Your task to perform on an android device: Open calendar and show me the third week of next month Image 0: 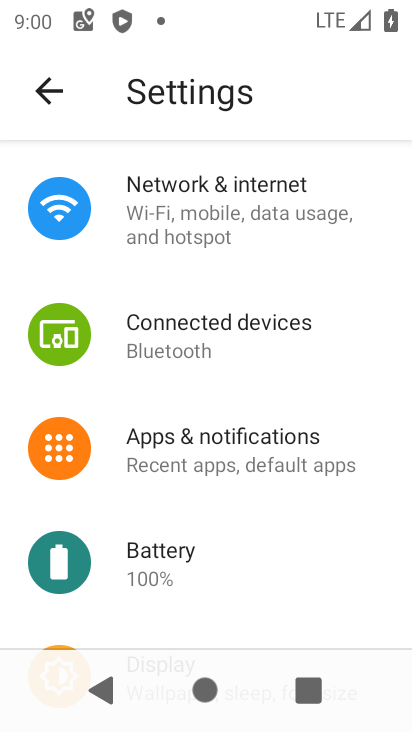
Step 0: press home button
Your task to perform on an android device: Open calendar and show me the third week of next month Image 1: 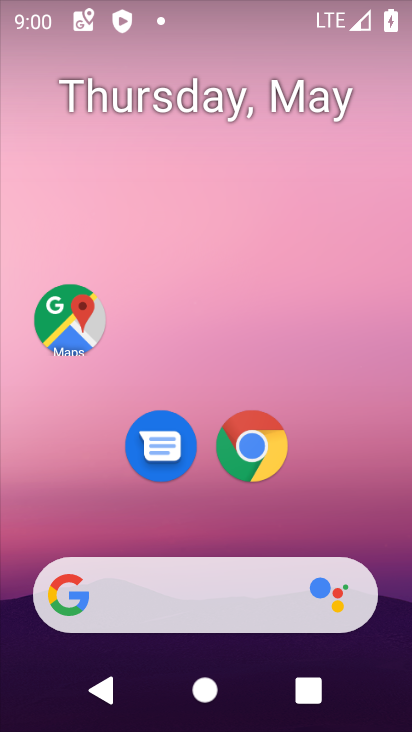
Step 1: drag from (395, 586) to (338, 58)
Your task to perform on an android device: Open calendar and show me the third week of next month Image 2: 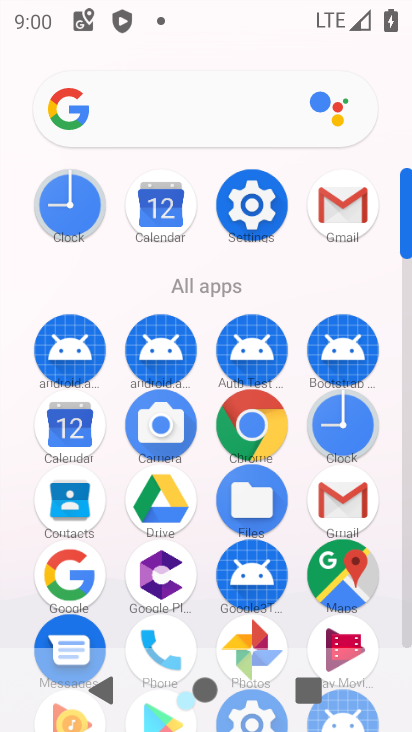
Step 2: click (407, 625)
Your task to perform on an android device: Open calendar and show me the third week of next month Image 3: 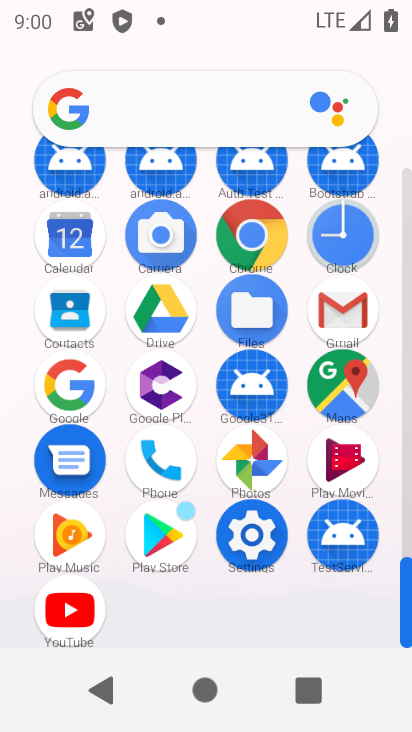
Step 3: click (64, 230)
Your task to perform on an android device: Open calendar and show me the third week of next month Image 4: 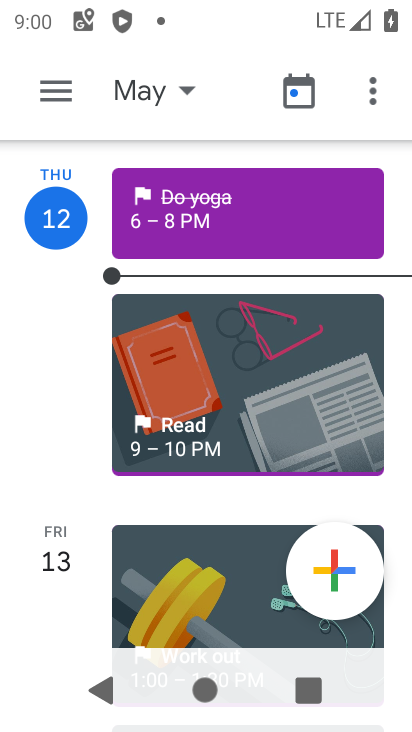
Step 4: drag from (157, 507) to (157, 451)
Your task to perform on an android device: Open calendar and show me the third week of next month Image 5: 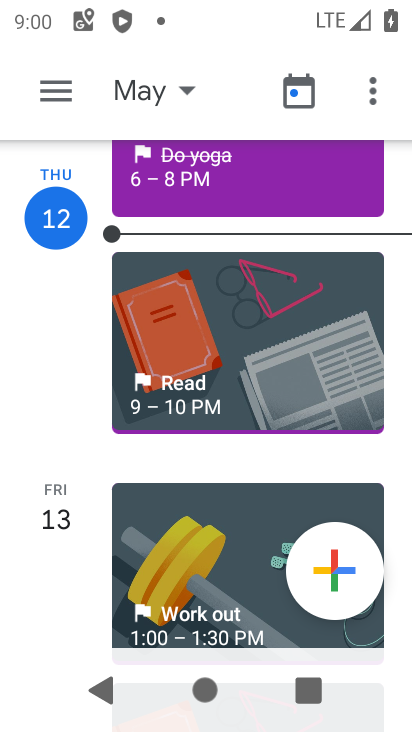
Step 5: click (181, 86)
Your task to perform on an android device: Open calendar and show me the third week of next month Image 6: 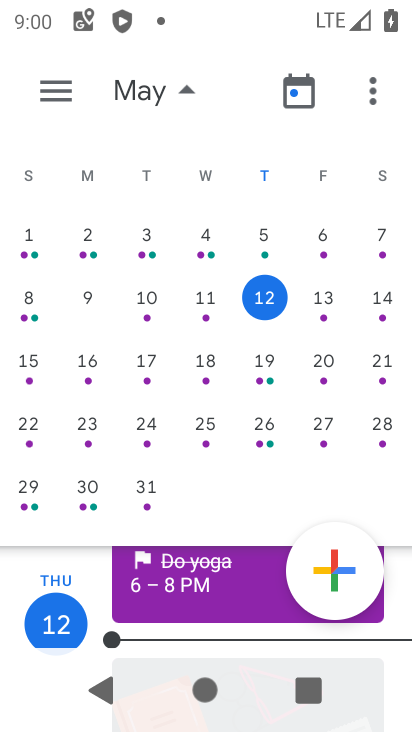
Step 6: click (64, 84)
Your task to perform on an android device: Open calendar and show me the third week of next month Image 7: 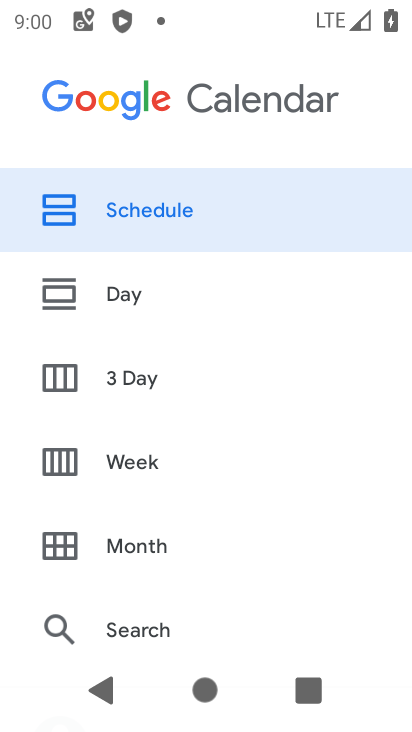
Step 7: click (139, 460)
Your task to perform on an android device: Open calendar and show me the third week of next month Image 8: 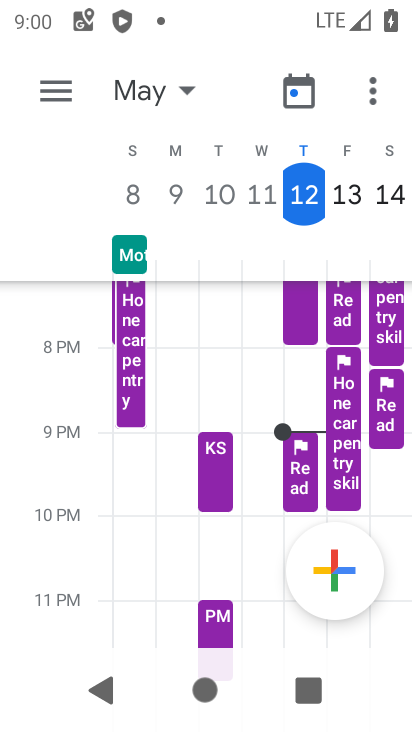
Step 8: click (184, 87)
Your task to perform on an android device: Open calendar and show me the third week of next month Image 9: 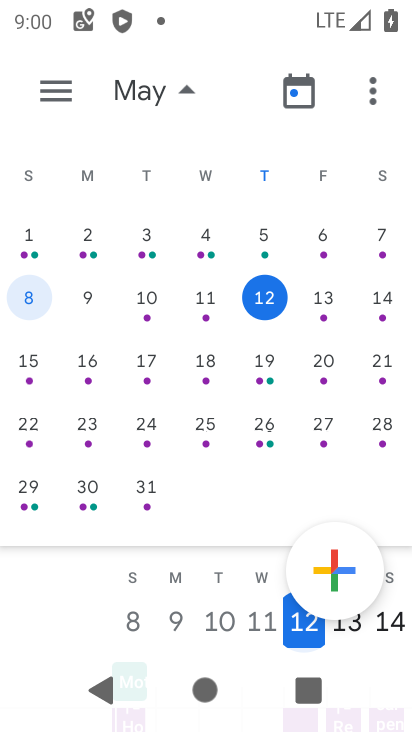
Step 9: drag from (367, 366) to (0, 327)
Your task to perform on an android device: Open calendar and show me the third week of next month Image 10: 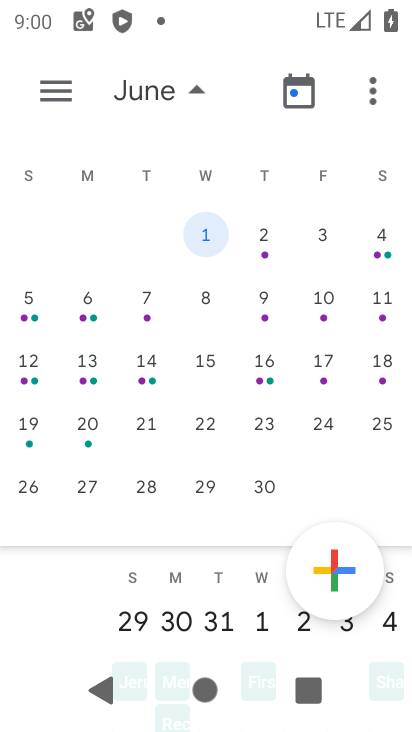
Step 10: click (26, 369)
Your task to perform on an android device: Open calendar and show me the third week of next month Image 11: 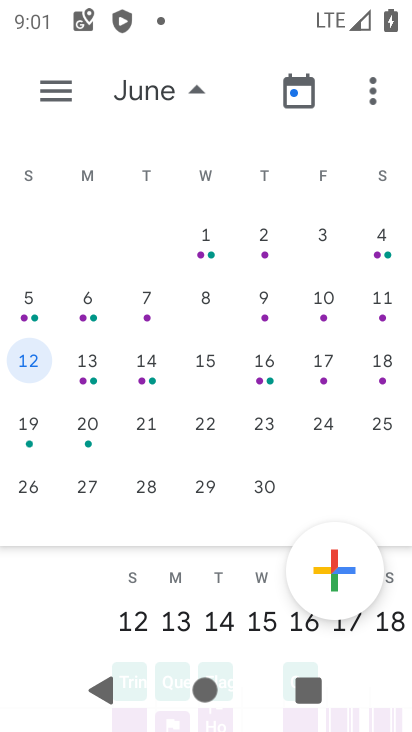
Step 11: task complete